Your task to perform on an android device: check data usage Image 0: 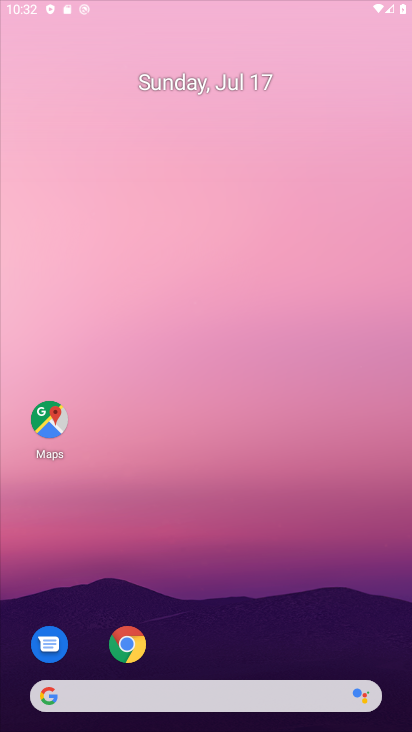
Step 0: click (268, 9)
Your task to perform on an android device: check data usage Image 1: 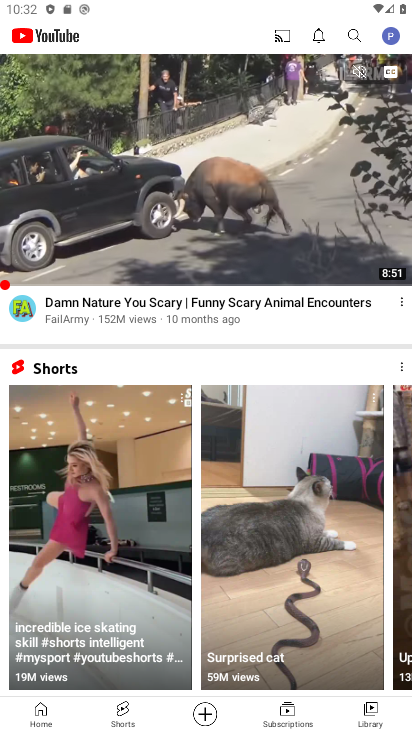
Step 1: press home button
Your task to perform on an android device: check data usage Image 2: 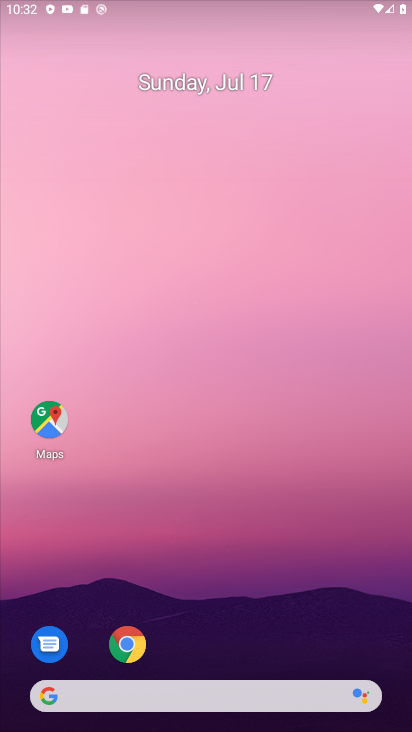
Step 2: drag from (362, 640) to (345, 44)
Your task to perform on an android device: check data usage Image 3: 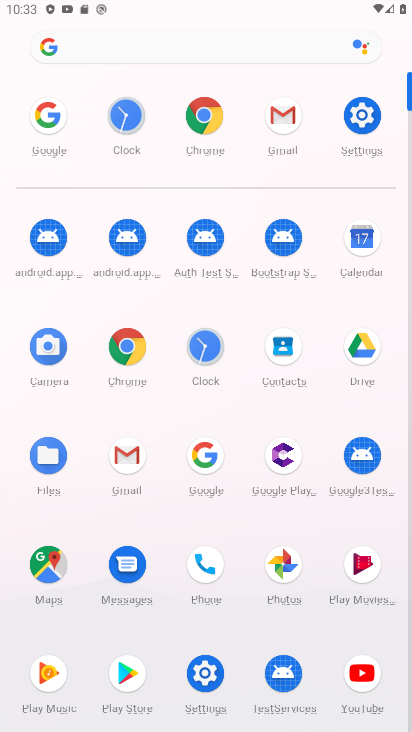
Step 3: click (366, 105)
Your task to perform on an android device: check data usage Image 4: 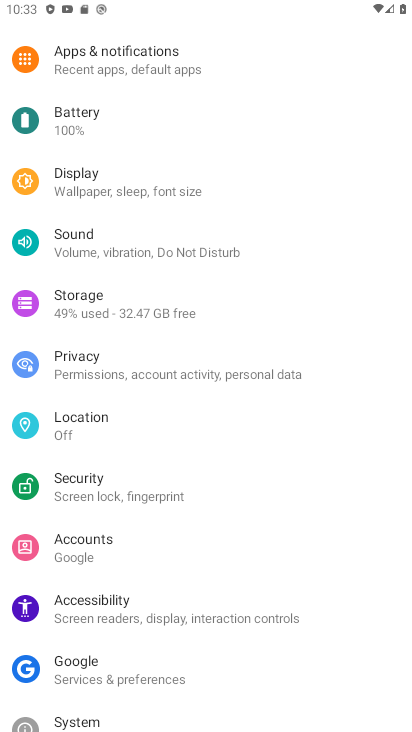
Step 4: drag from (159, 130) to (172, 589)
Your task to perform on an android device: check data usage Image 5: 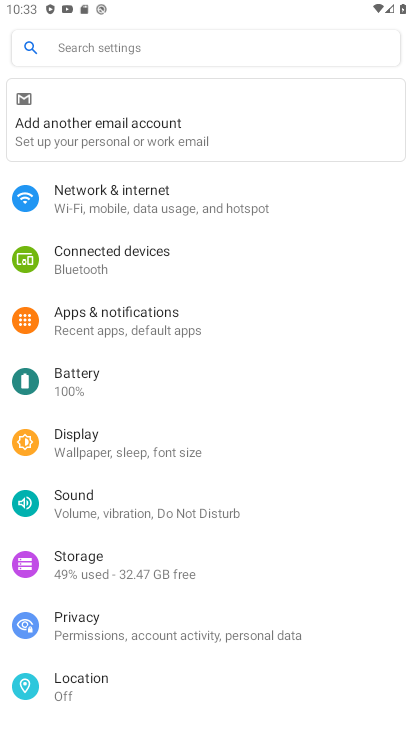
Step 5: click (75, 201)
Your task to perform on an android device: check data usage Image 6: 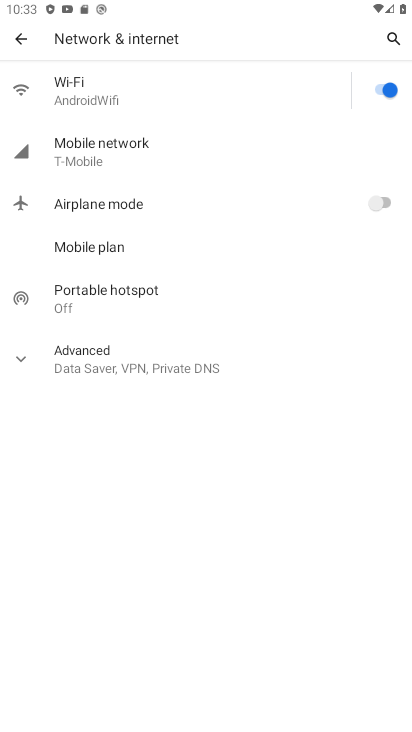
Step 6: task complete